Your task to perform on an android device: Open Google Image 0: 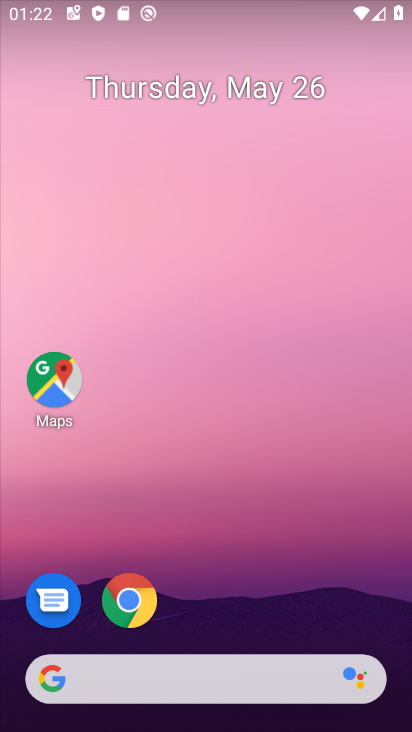
Step 0: click (126, 667)
Your task to perform on an android device: Open Google Image 1: 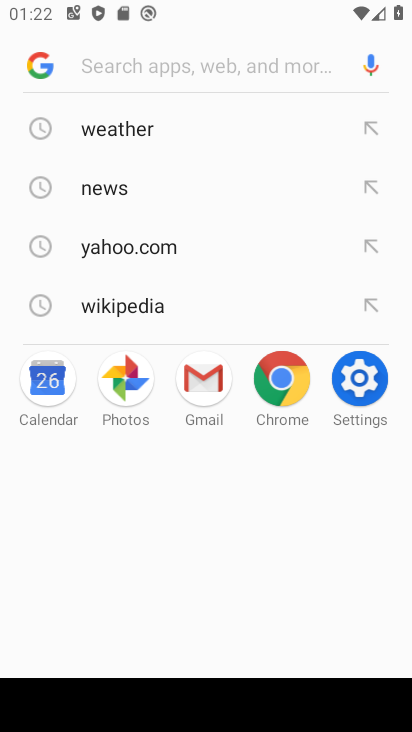
Step 1: task complete